Your task to perform on an android device: Clear all items from cart on newegg.com. Search for "lenovo thinkpad" on newegg.com, select the first entry, and add it to the cart. Image 0: 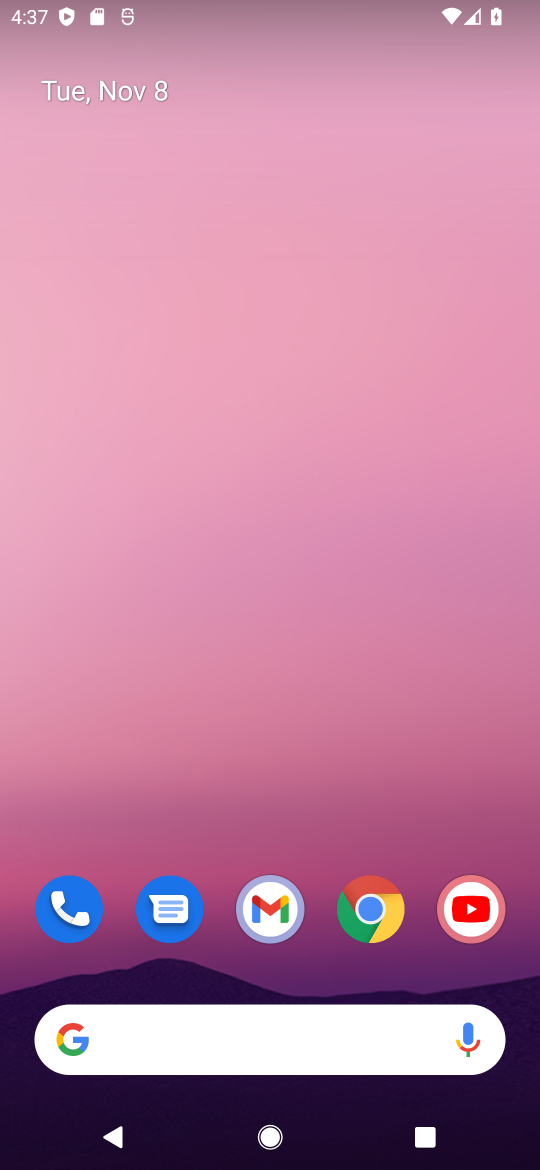
Step 0: click (385, 899)
Your task to perform on an android device: Clear all items from cart on newegg.com. Search for "lenovo thinkpad" on newegg.com, select the first entry, and add it to the cart. Image 1: 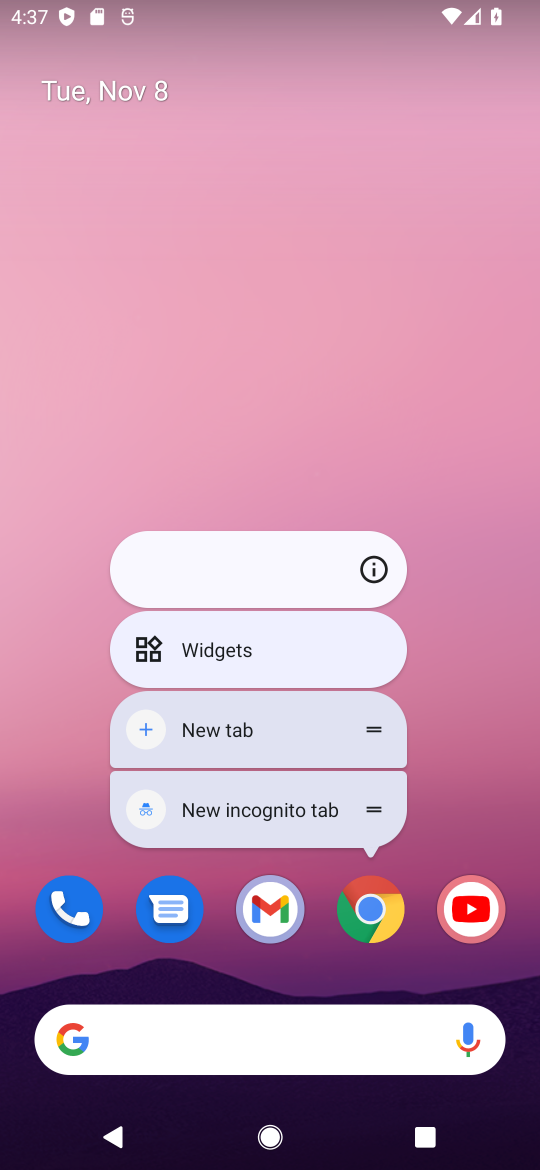
Step 1: click (374, 902)
Your task to perform on an android device: Clear all items from cart on newegg.com. Search for "lenovo thinkpad" on newegg.com, select the first entry, and add it to the cart. Image 2: 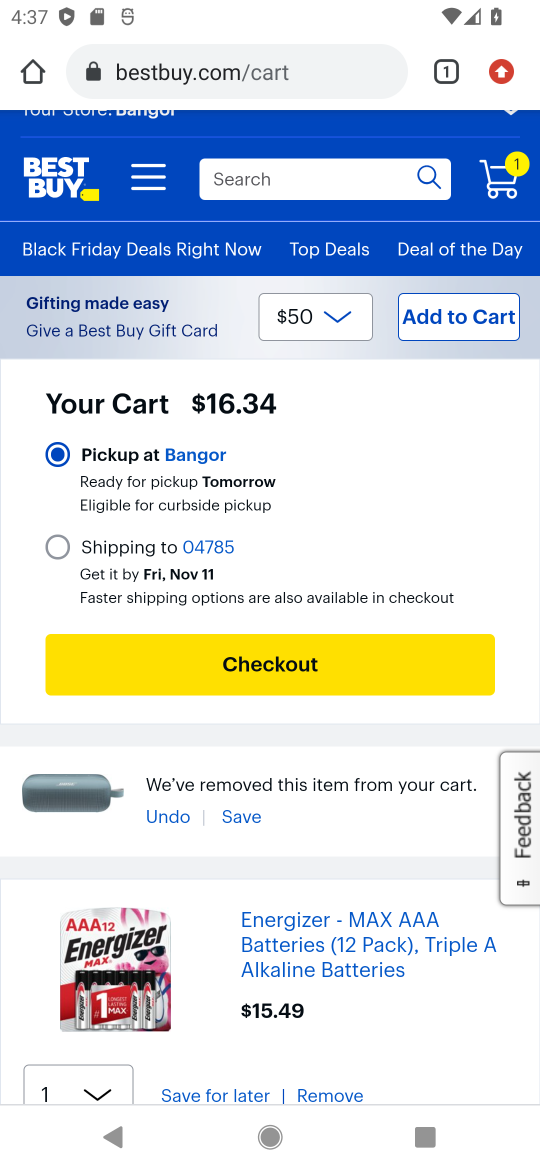
Step 2: click (317, 71)
Your task to perform on an android device: Clear all items from cart on newegg.com. Search for "lenovo thinkpad" on newegg.com, select the first entry, and add it to the cart. Image 3: 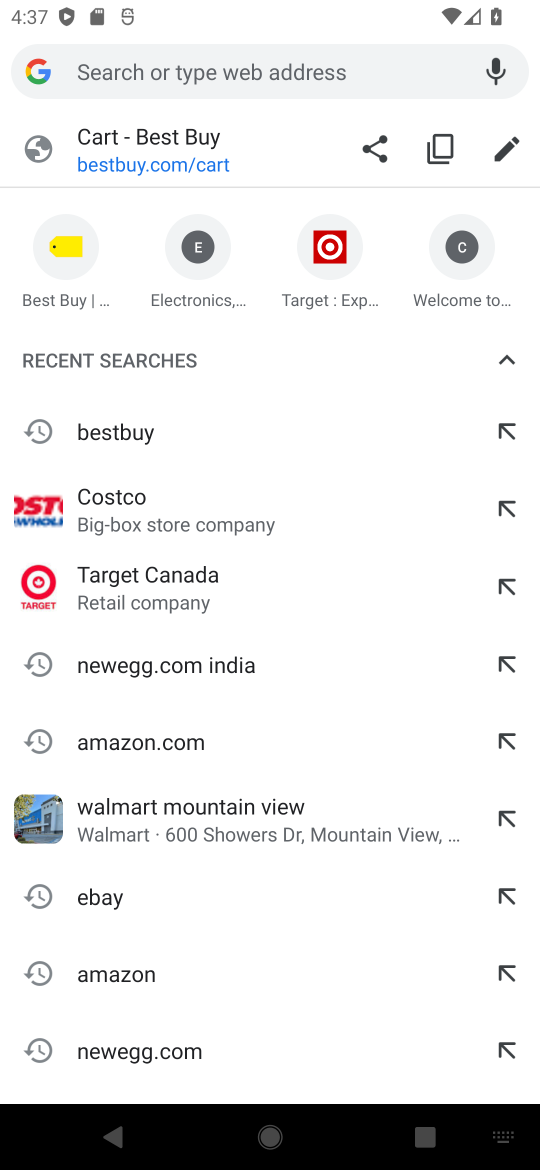
Step 3: click (128, 1046)
Your task to perform on an android device: Clear all items from cart on newegg.com. Search for "lenovo thinkpad" on newegg.com, select the first entry, and add it to the cart. Image 4: 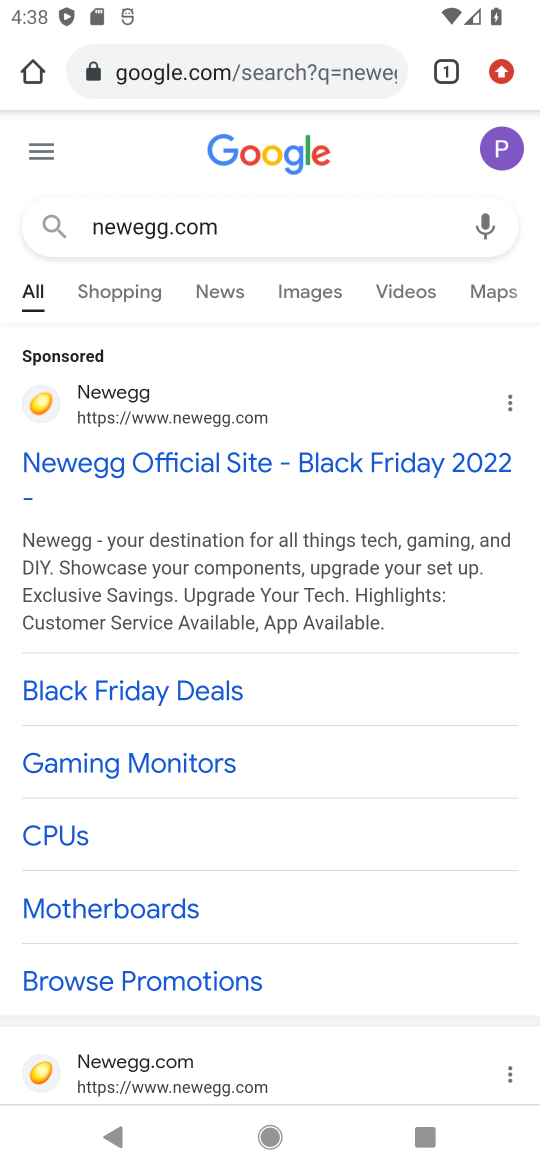
Step 4: click (207, 462)
Your task to perform on an android device: Clear all items from cart on newegg.com. Search for "lenovo thinkpad" on newegg.com, select the first entry, and add it to the cart. Image 5: 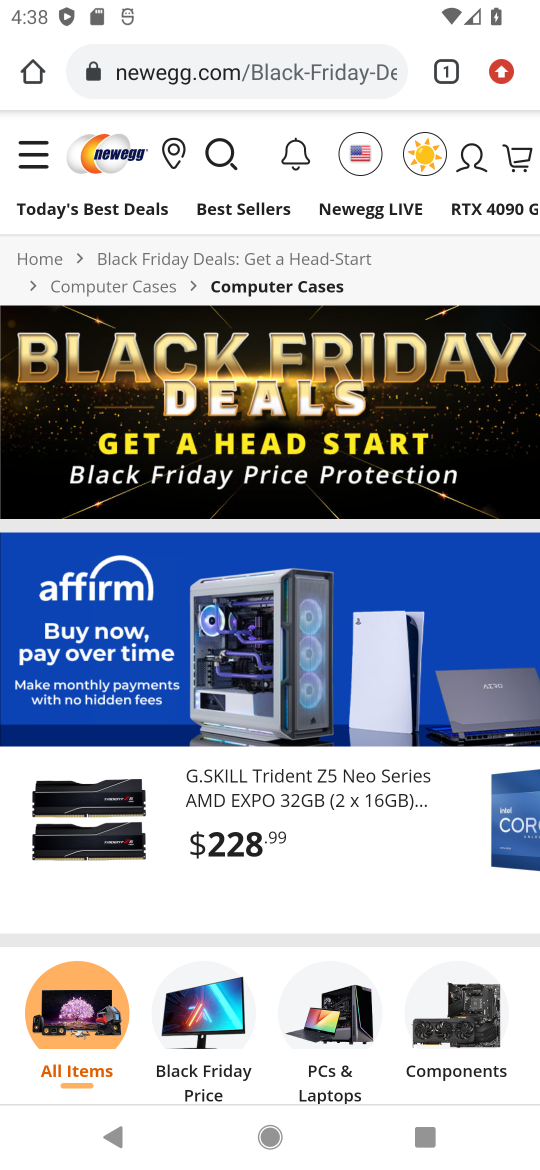
Step 5: click (219, 150)
Your task to perform on an android device: Clear all items from cart on newegg.com. Search for "lenovo thinkpad" on newegg.com, select the first entry, and add it to the cart. Image 6: 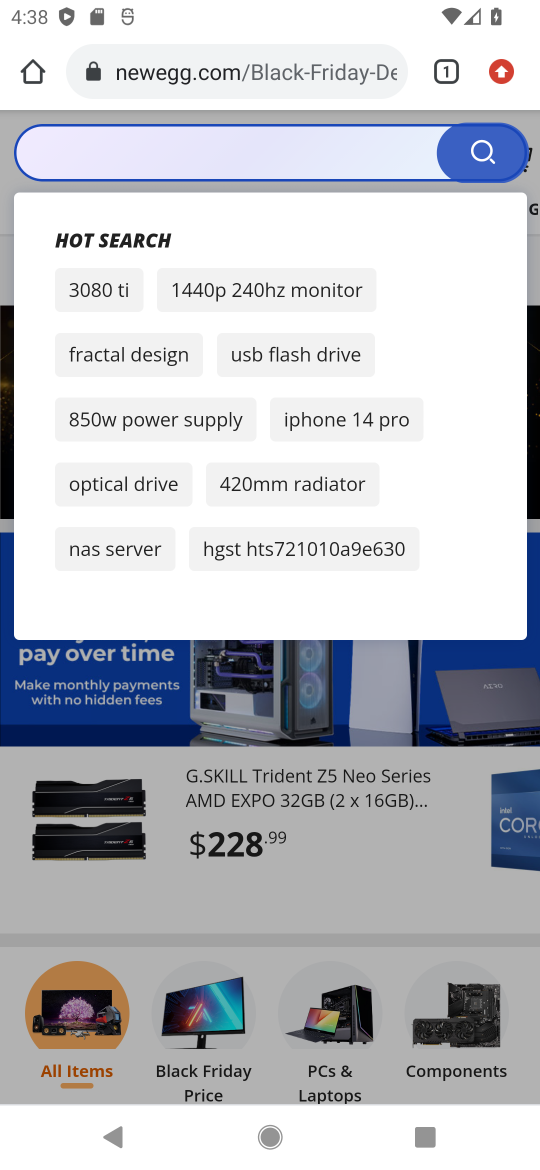
Step 6: click (202, 146)
Your task to perform on an android device: Clear all items from cart on newegg.com. Search for "lenovo thinkpad" on newegg.com, select the first entry, and add it to the cart. Image 7: 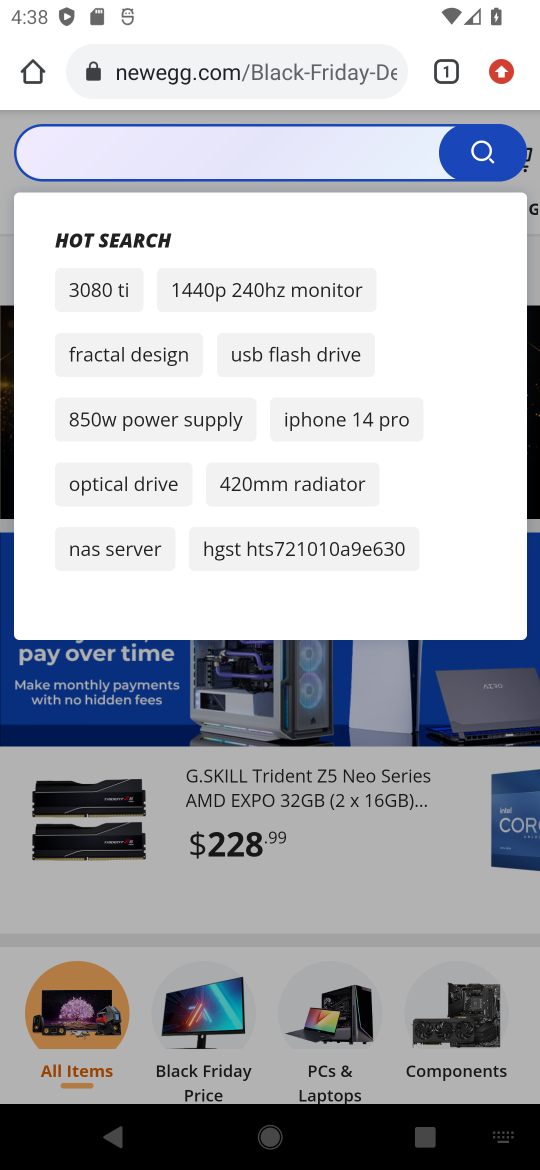
Step 7: click (72, 141)
Your task to perform on an android device: Clear all items from cart on newegg.com. Search for "lenovo thinkpad" on newegg.com, select the first entry, and add it to the cart. Image 8: 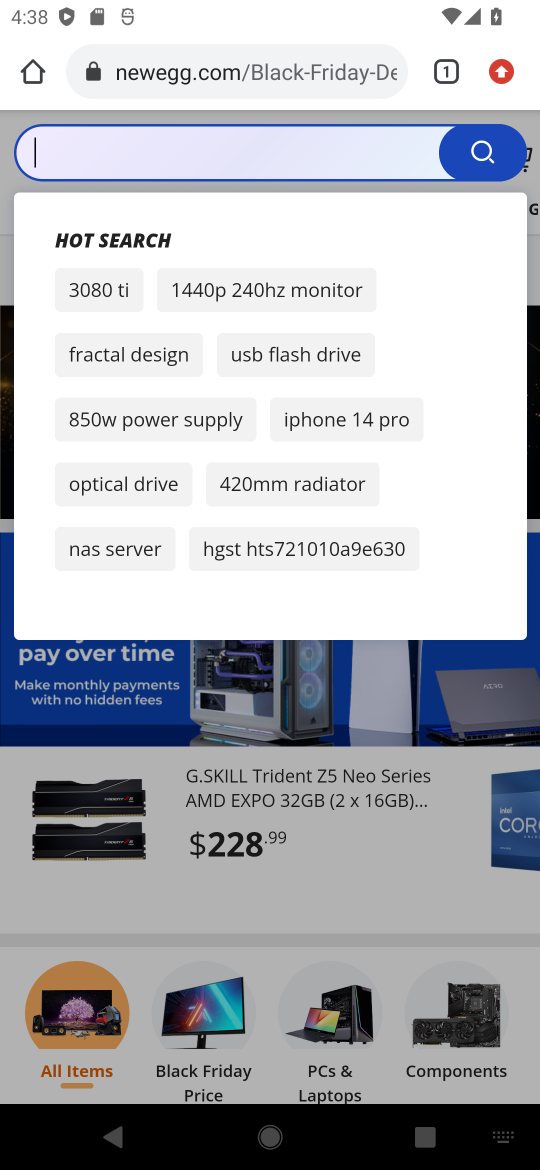
Step 8: type "lenovo thinkpad"
Your task to perform on an android device: Clear all items from cart on newegg.com. Search for "lenovo thinkpad" on newegg.com, select the first entry, and add it to the cart. Image 9: 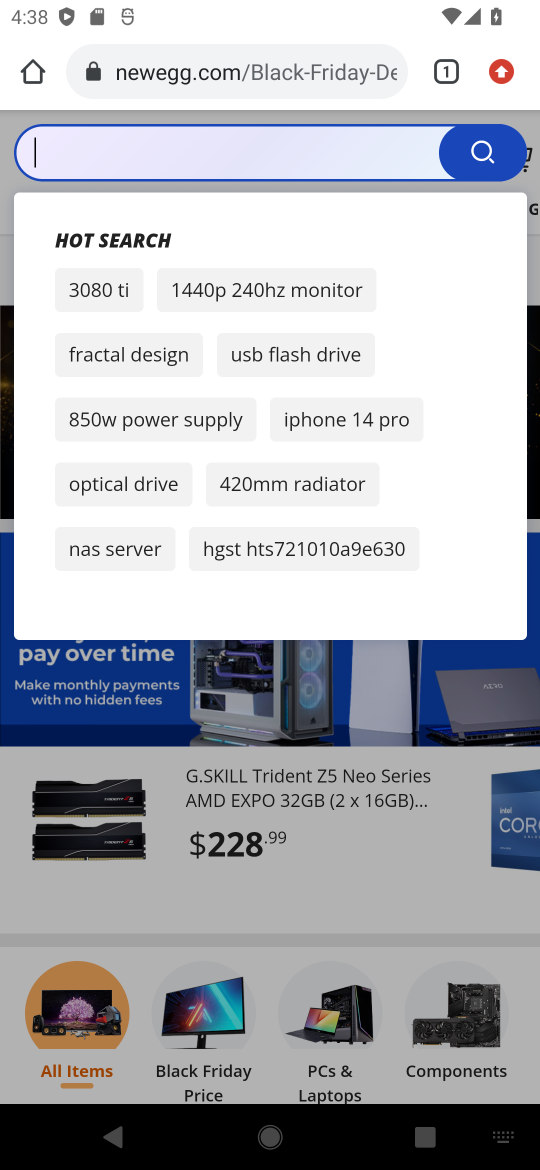
Step 9: press enter
Your task to perform on an android device: Clear all items from cart on newegg.com. Search for "lenovo thinkpad" on newegg.com, select the first entry, and add it to the cart. Image 10: 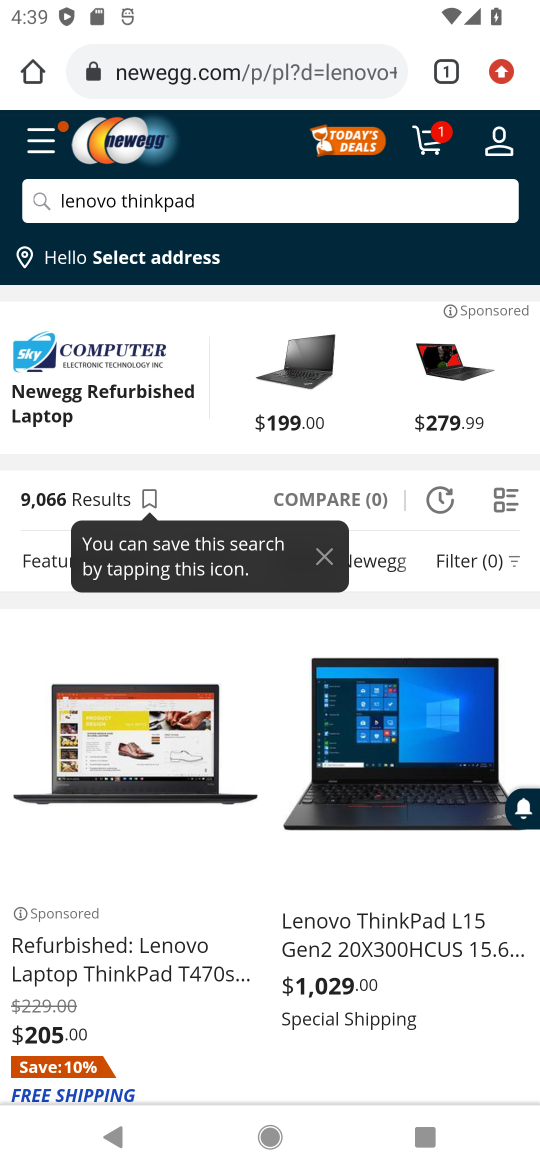
Step 10: click (104, 955)
Your task to perform on an android device: Clear all items from cart on newegg.com. Search for "lenovo thinkpad" on newegg.com, select the first entry, and add it to the cart. Image 11: 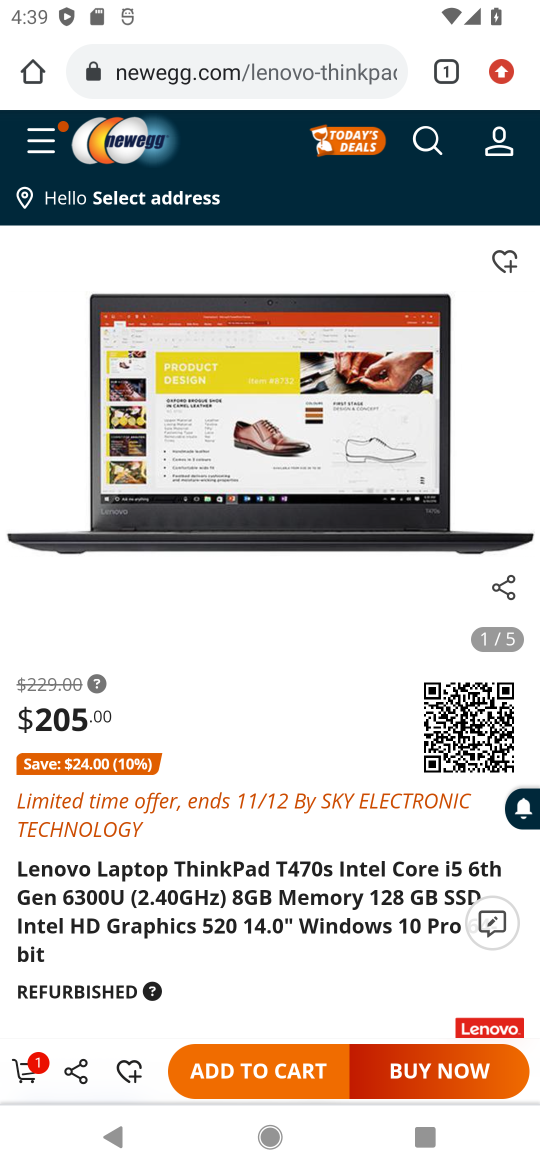
Step 11: drag from (188, 935) to (358, 579)
Your task to perform on an android device: Clear all items from cart on newegg.com. Search for "lenovo thinkpad" on newegg.com, select the first entry, and add it to the cart. Image 12: 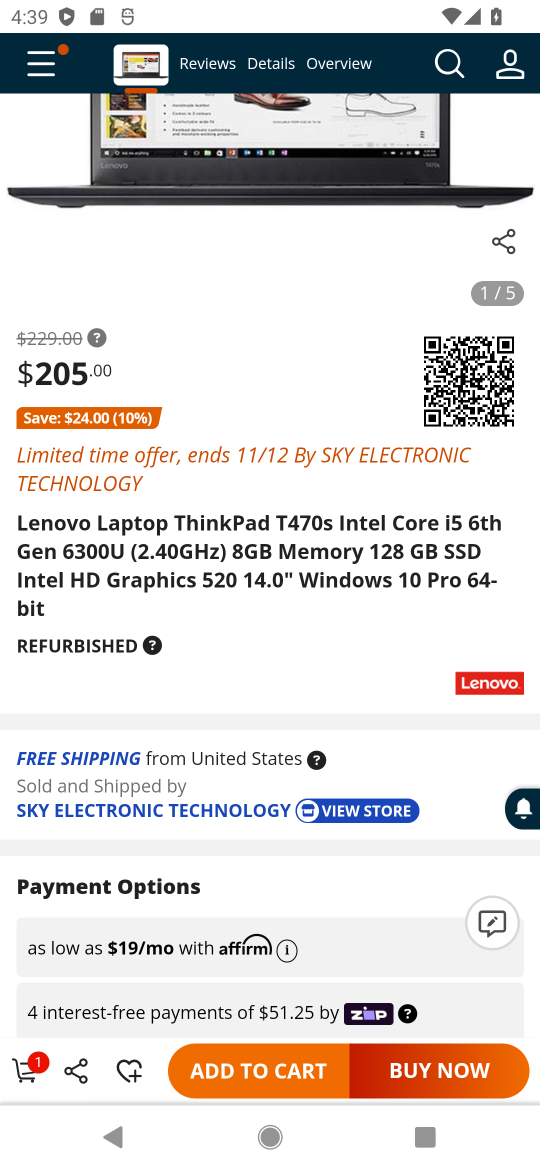
Step 12: click (248, 1070)
Your task to perform on an android device: Clear all items from cart on newegg.com. Search for "lenovo thinkpad" on newegg.com, select the first entry, and add it to the cart. Image 13: 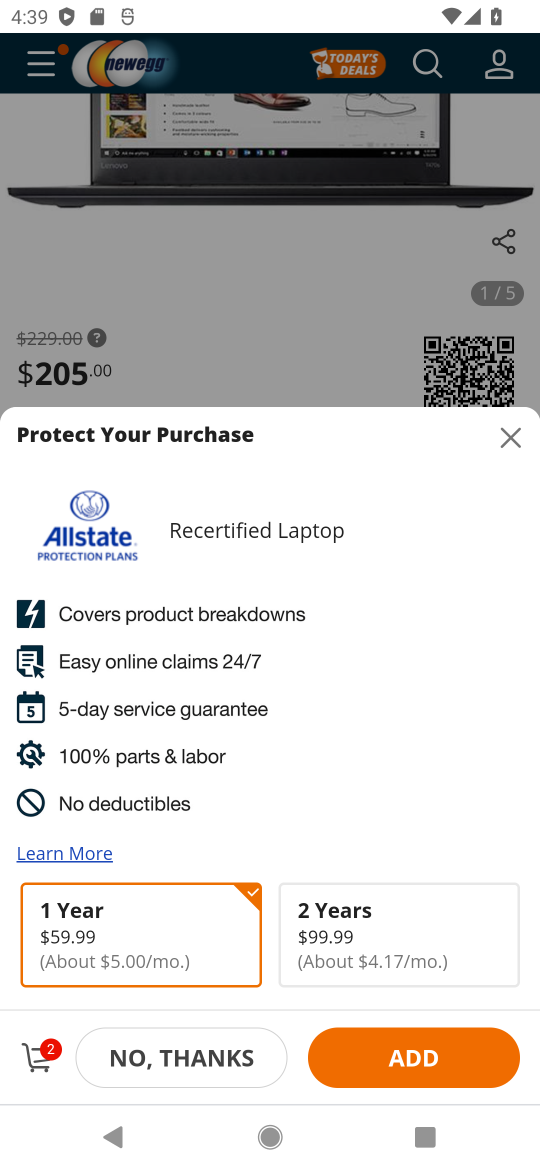
Step 13: click (44, 1055)
Your task to perform on an android device: Clear all items from cart on newegg.com. Search for "lenovo thinkpad" on newegg.com, select the first entry, and add it to the cart. Image 14: 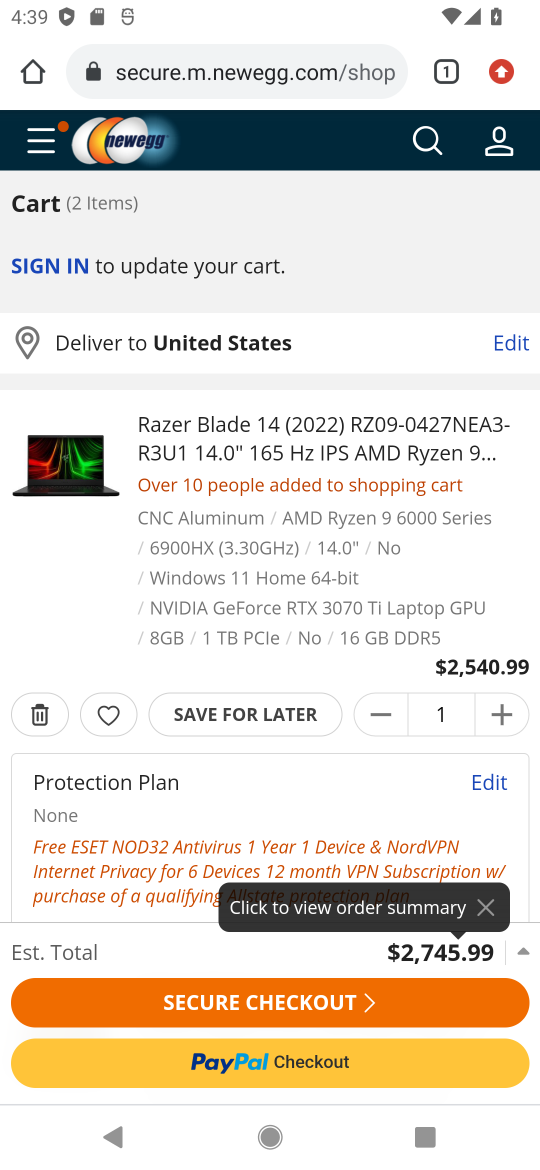
Step 14: click (38, 709)
Your task to perform on an android device: Clear all items from cart on newegg.com. Search for "lenovo thinkpad" on newegg.com, select the first entry, and add it to the cart. Image 15: 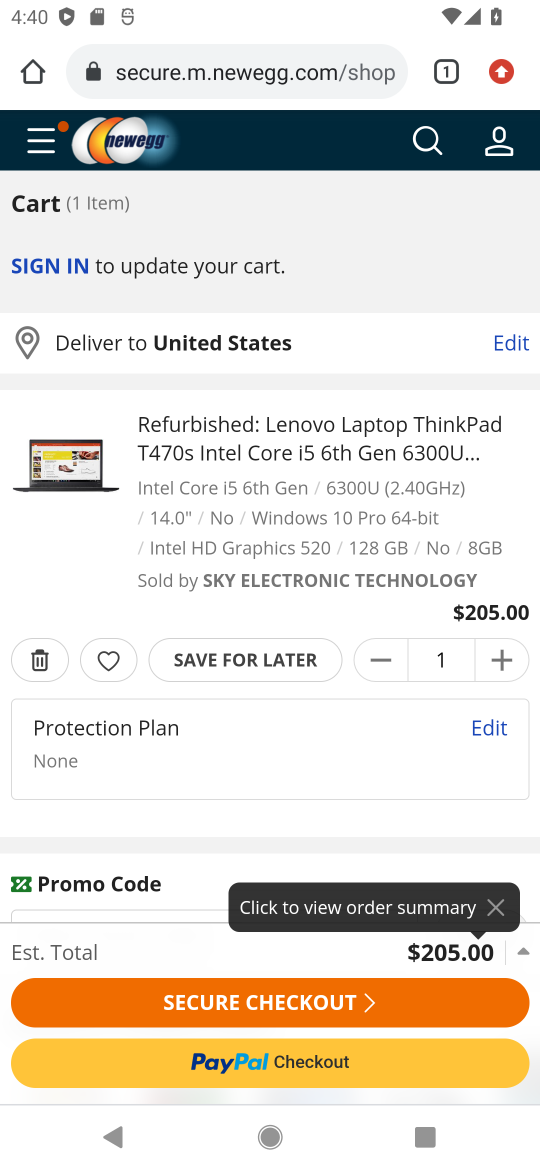
Step 15: task complete